Your task to perform on an android device: Open Chrome and go to settings Image 0: 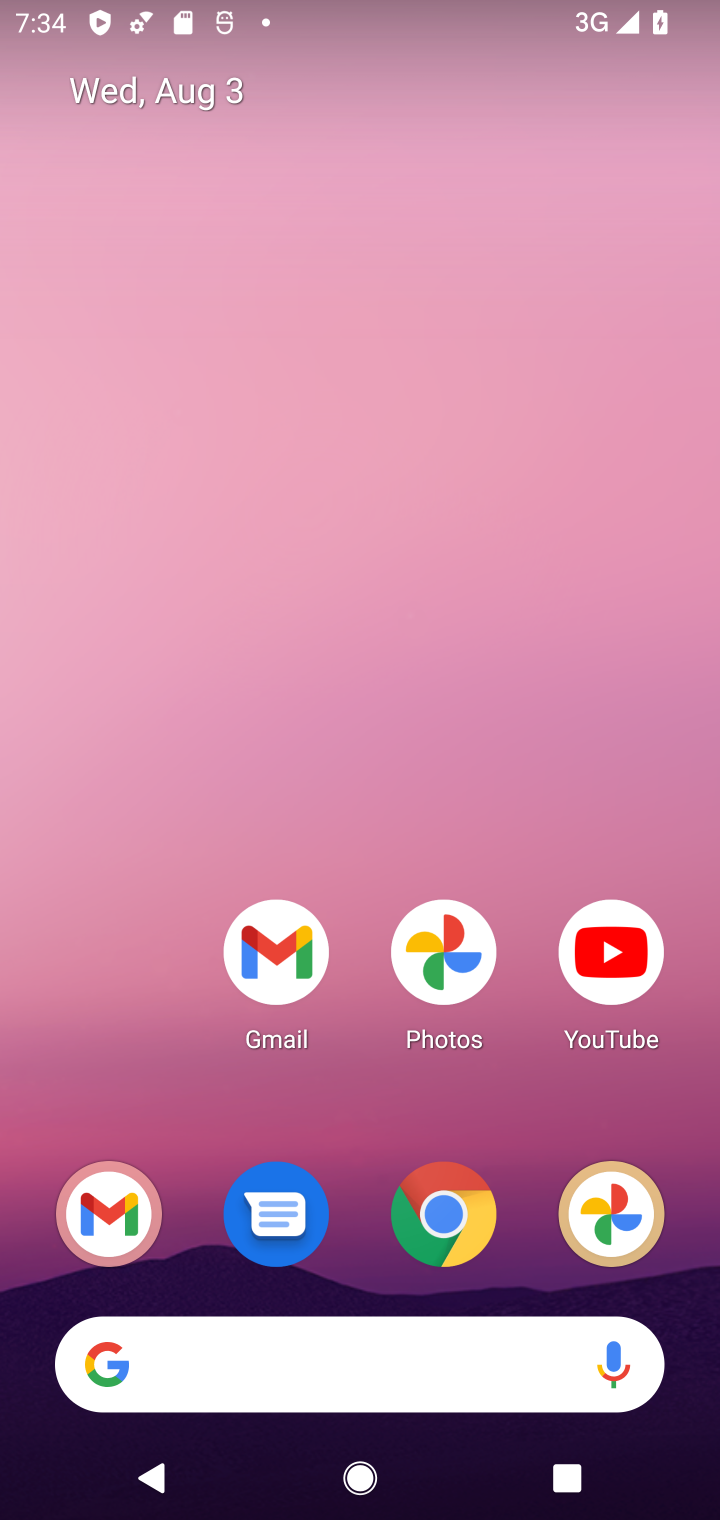
Step 0: click (449, 1220)
Your task to perform on an android device: Open Chrome and go to settings Image 1: 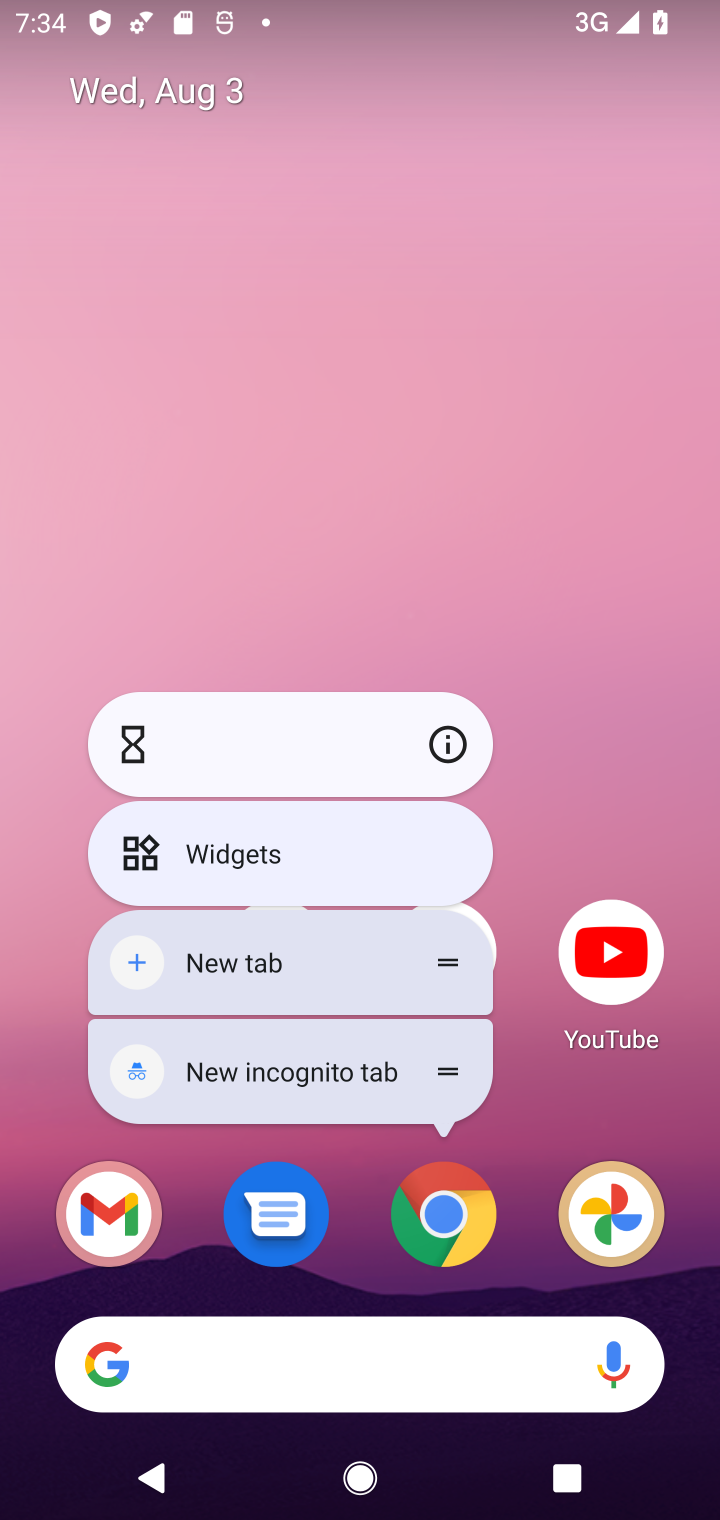
Step 1: click (445, 1181)
Your task to perform on an android device: Open Chrome and go to settings Image 2: 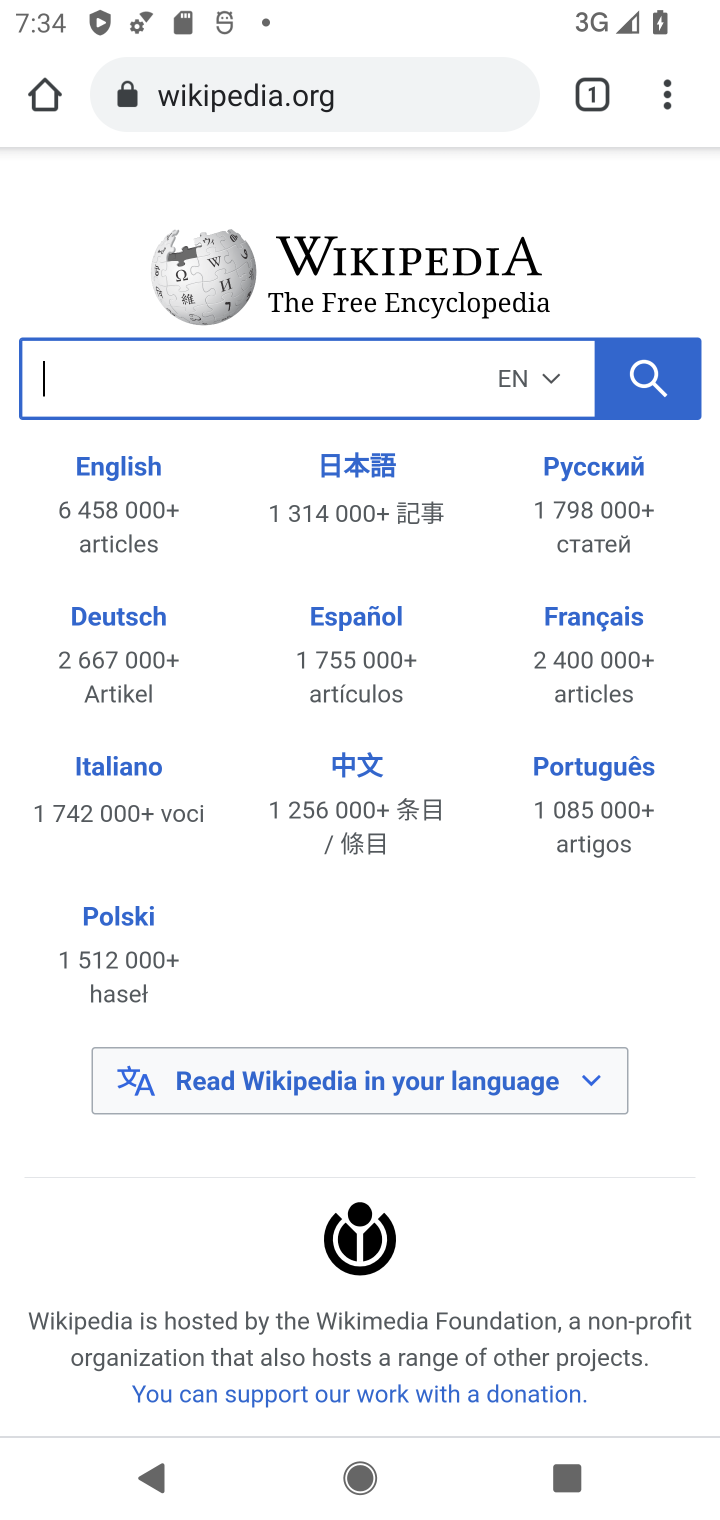
Step 2: task complete